Your task to perform on an android device: Go to Wikipedia Image 0: 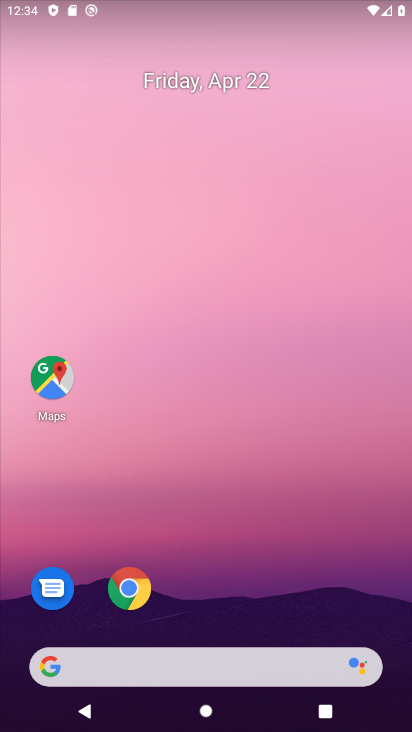
Step 0: drag from (373, 508) to (373, 150)
Your task to perform on an android device: Go to Wikipedia Image 1: 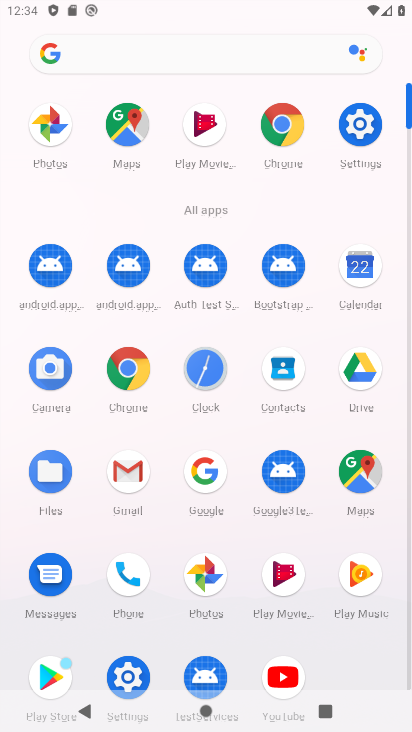
Step 1: click (287, 131)
Your task to perform on an android device: Go to Wikipedia Image 2: 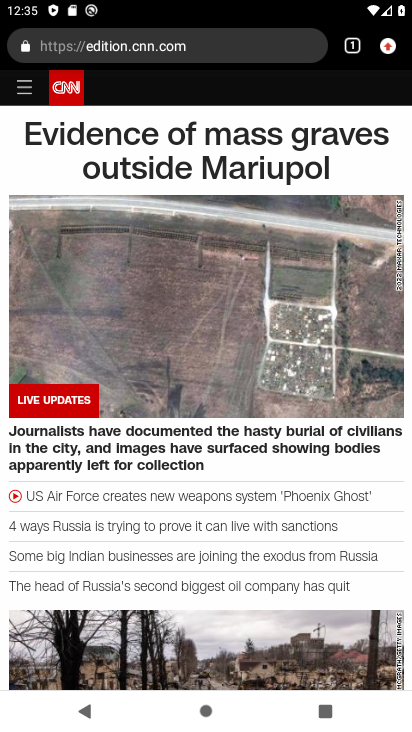
Step 2: click (182, 44)
Your task to perform on an android device: Go to Wikipedia Image 3: 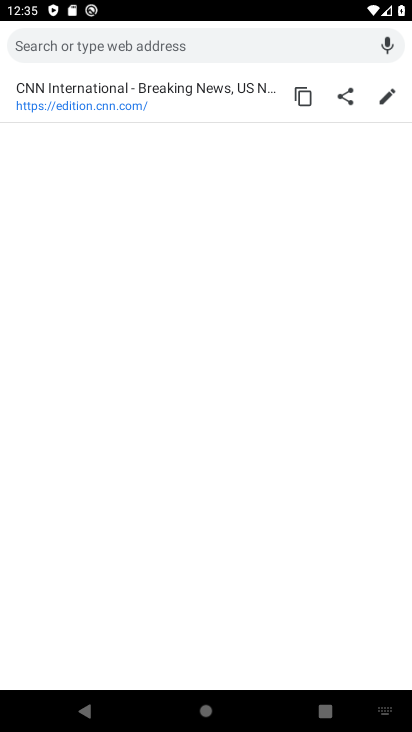
Step 3: type "wikipedia"
Your task to perform on an android device: Go to Wikipedia Image 4: 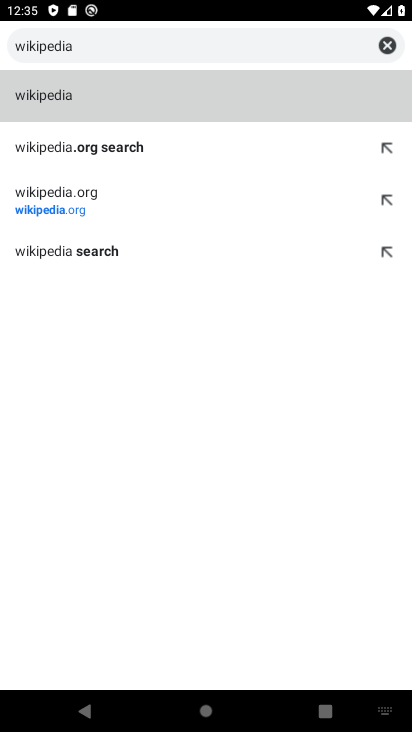
Step 4: click (58, 89)
Your task to perform on an android device: Go to Wikipedia Image 5: 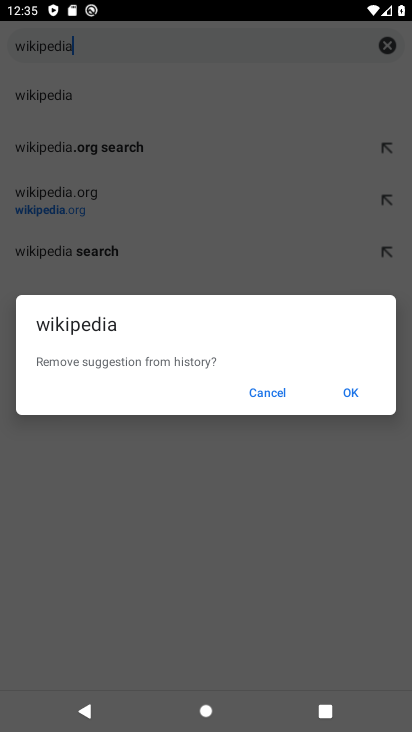
Step 5: click (355, 393)
Your task to perform on an android device: Go to Wikipedia Image 6: 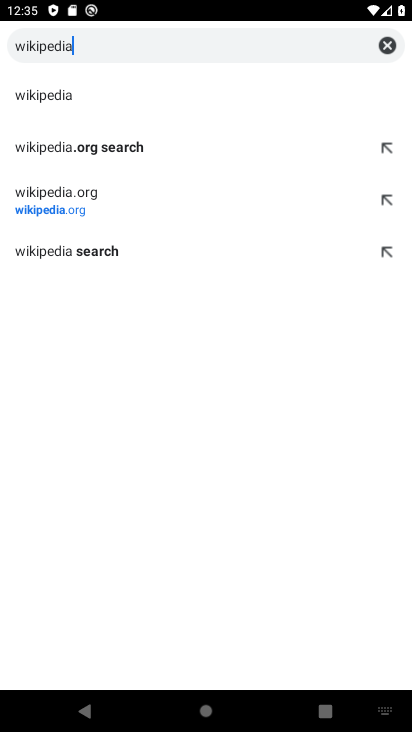
Step 6: click (31, 91)
Your task to perform on an android device: Go to Wikipedia Image 7: 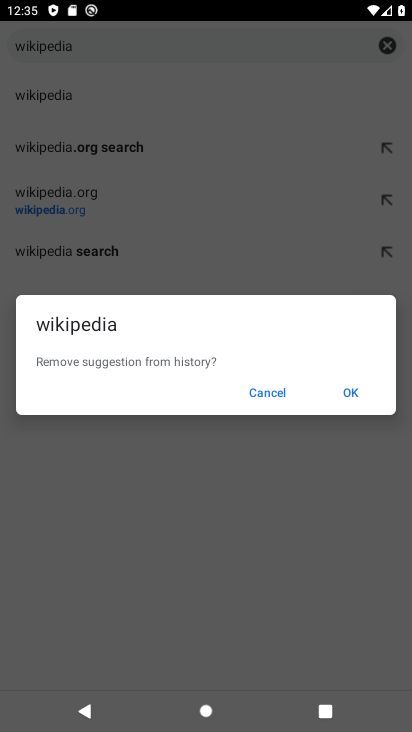
Step 7: click (354, 395)
Your task to perform on an android device: Go to Wikipedia Image 8: 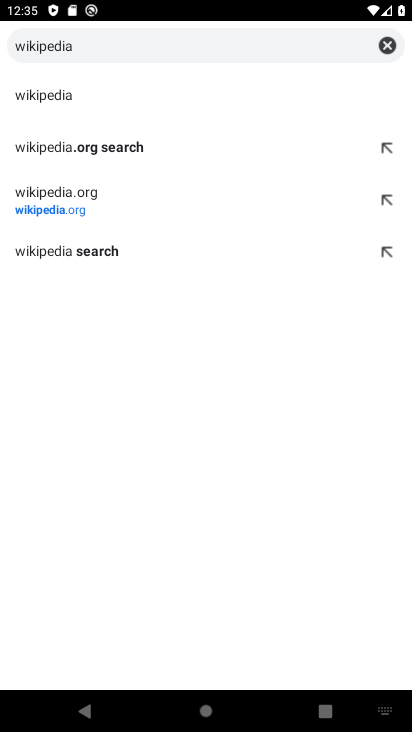
Step 8: click (44, 94)
Your task to perform on an android device: Go to Wikipedia Image 9: 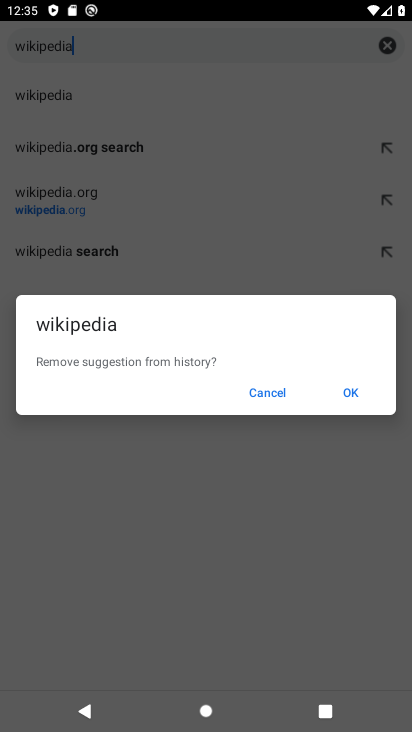
Step 9: click (44, 185)
Your task to perform on an android device: Go to Wikipedia Image 10: 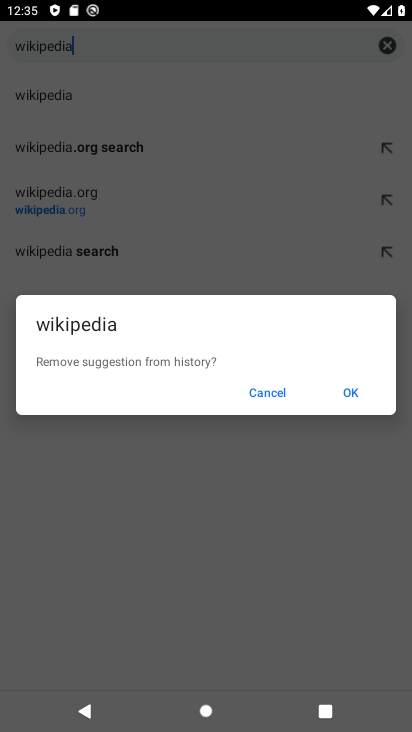
Step 10: click (42, 207)
Your task to perform on an android device: Go to Wikipedia Image 11: 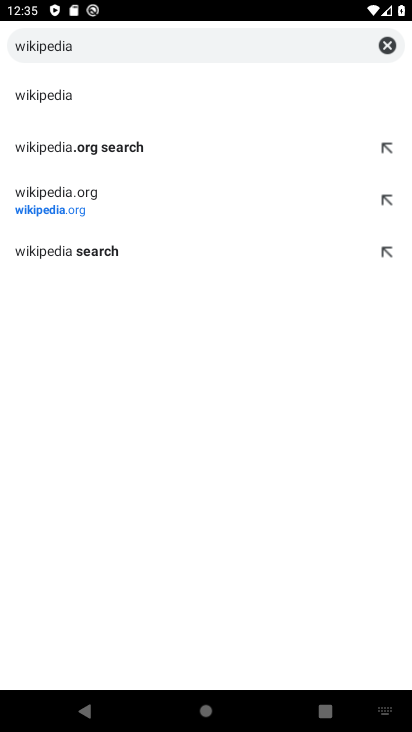
Step 11: click (82, 196)
Your task to perform on an android device: Go to Wikipedia Image 12: 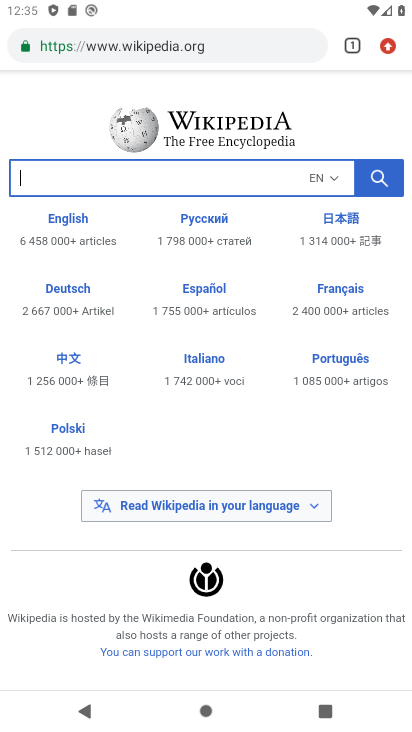
Step 12: task complete